Your task to perform on an android device: What's on my calendar today? Image 0: 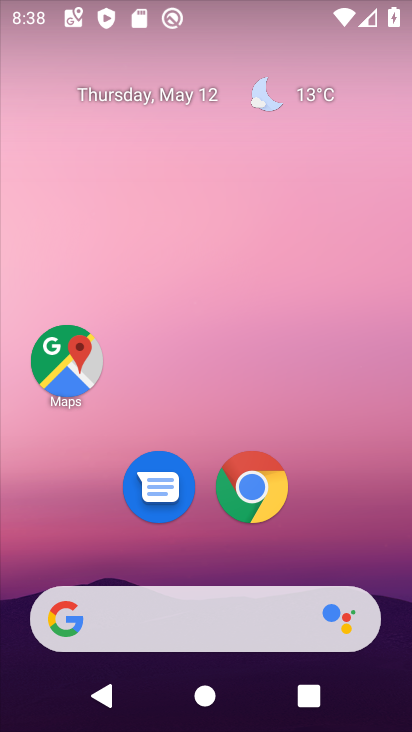
Step 0: press home button
Your task to perform on an android device: What's on my calendar today? Image 1: 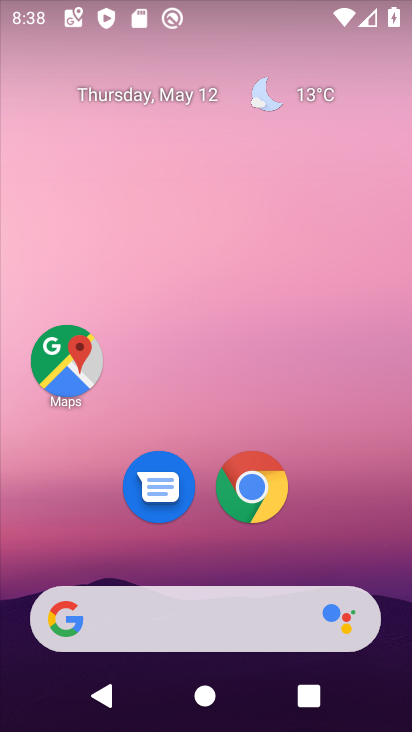
Step 1: drag from (381, 532) to (311, 3)
Your task to perform on an android device: What's on my calendar today? Image 2: 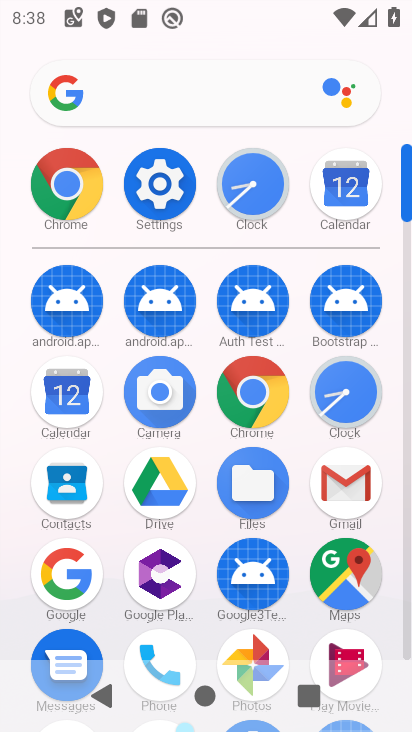
Step 2: click (329, 206)
Your task to perform on an android device: What's on my calendar today? Image 3: 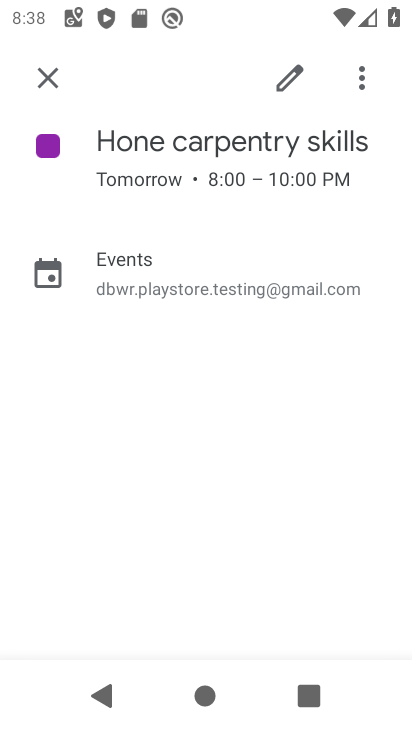
Step 3: click (38, 80)
Your task to perform on an android device: What's on my calendar today? Image 4: 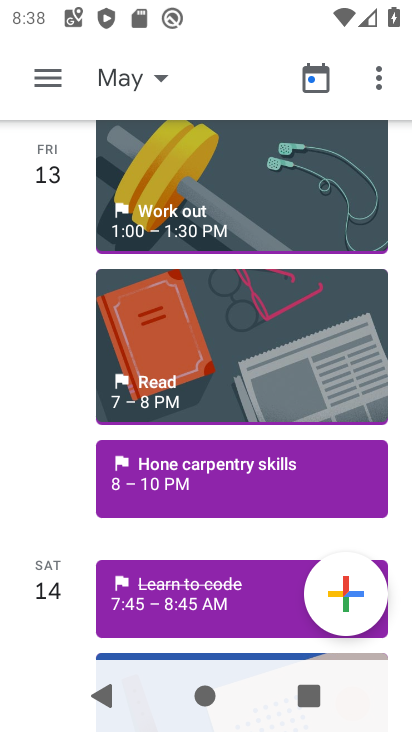
Step 4: drag from (213, 247) to (198, 500)
Your task to perform on an android device: What's on my calendar today? Image 5: 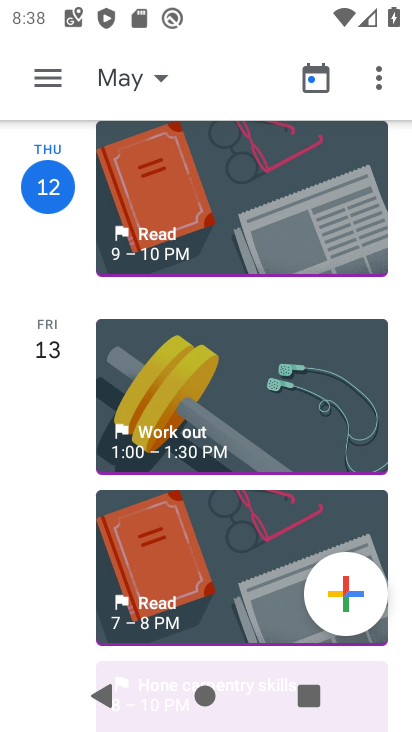
Step 5: drag from (210, 256) to (193, 494)
Your task to perform on an android device: What's on my calendar today? Image 6: 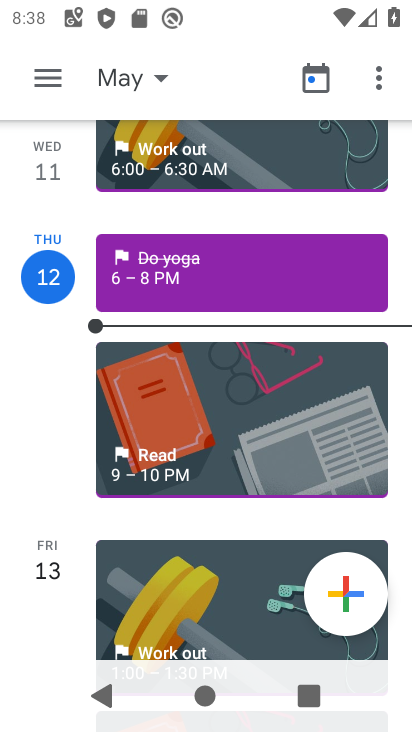
Step 6: click (204, 449)
Your task to perform on an android device: What's on my calendar today? Image 7: 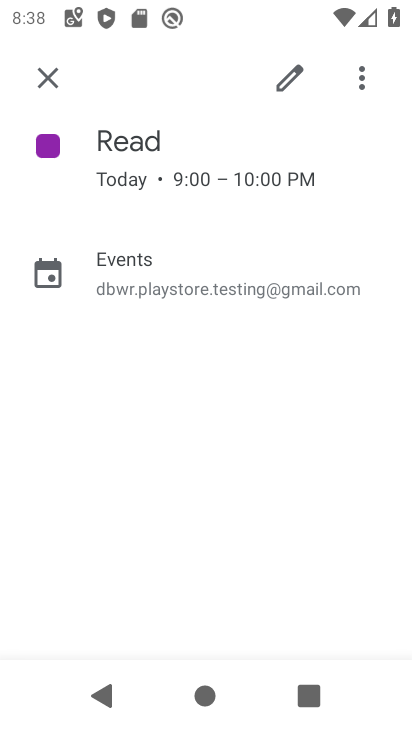
Step 7: task complete